Your task to perform on an android device: read, delete, or share a saved page in the chrome app Image 0: 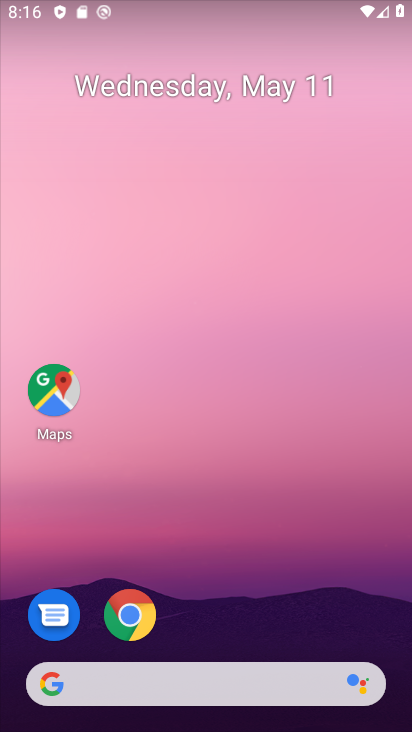
Step 0: drag from (302, 575) to (294, 96)
Your task to perform on an android device: read, delete, or share a saved page in the chrome app Image 1: 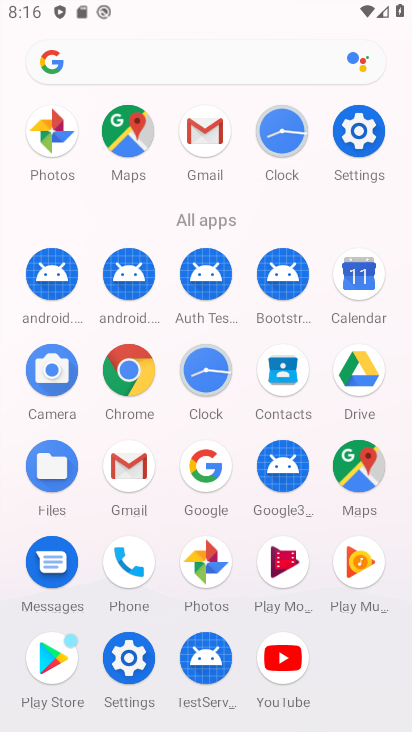
Step 1: press home button
Your task to perform on an android device: read, delete, or share a saved page in the chrome app Image 2: 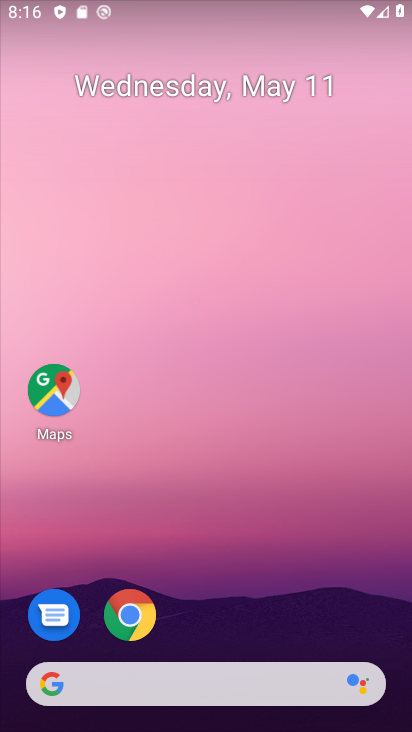
Step 2: click (136, 611)
Your task to perform on an android device: read, delete, or share a saved page in the chrome app Image 3: 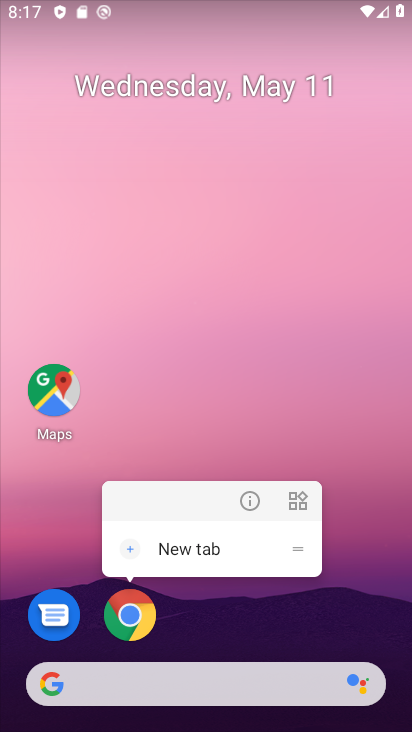
Step 3: click (136, 611)
Your task to perform on an android device: read, delete, or share a saved page in the chrome app Image 4: 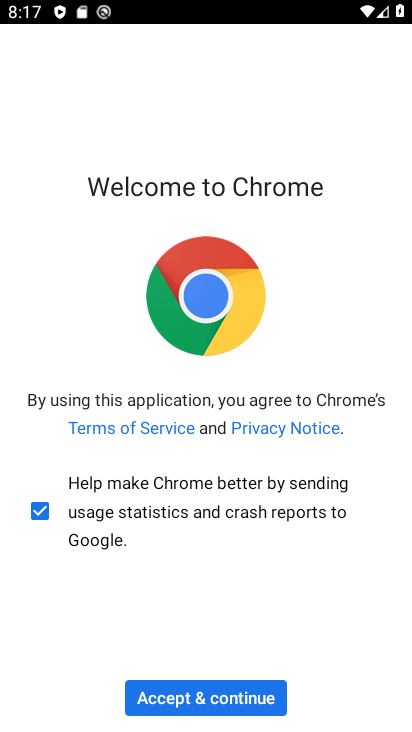
Step 4: click (208, 698)
Your task to perform on an android device: read, delete, or share a saved page in the chrome app Image 5: 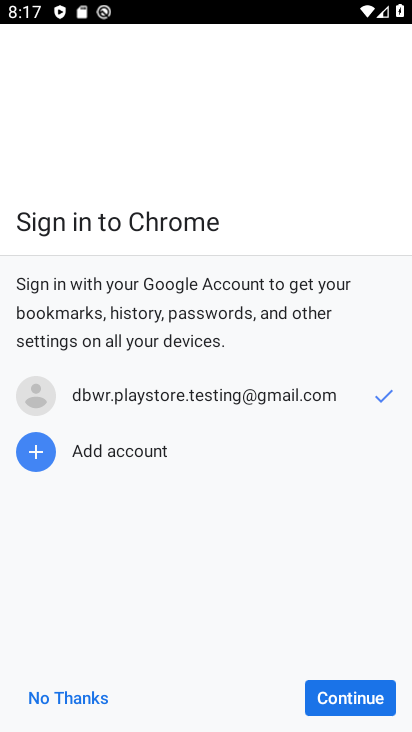
Step 5: click (99, 694)
Your task to perform on an android device: read, delete, or share a saved page in the chrome app Image 6: 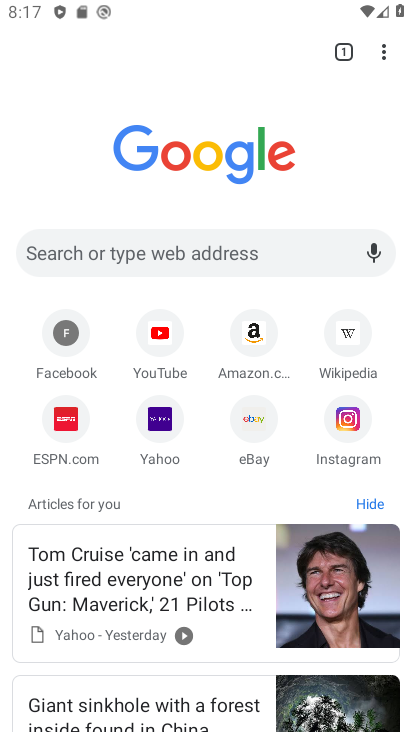
Step 6: task complete